Your task to perform on an android device: turn on data saver in the chrome app Image 0: 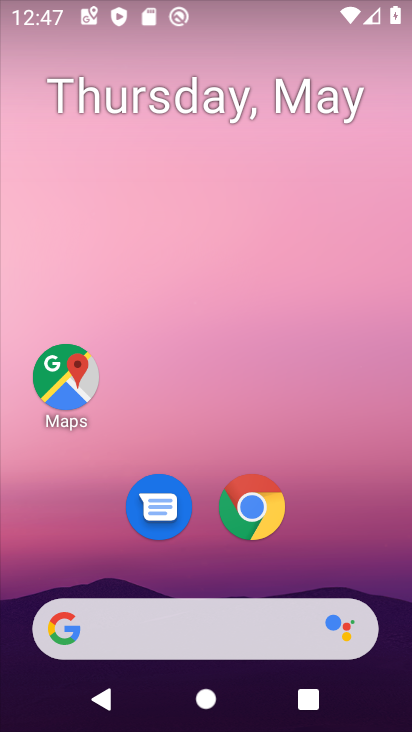
Step 0: drag from (324, 586) to (259, 21)
Your task to perform on an android device: turn on data saver in the chrome app Image 1: 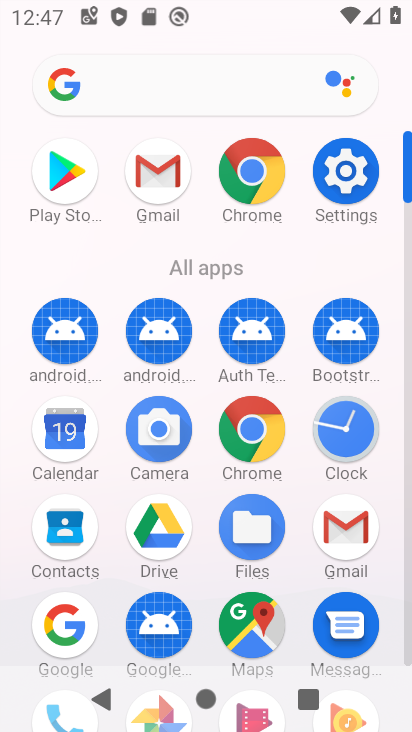
Step 1: click (255, 464)
Your task to perform on an android device: turn on data saver in the chrome app Image 2: 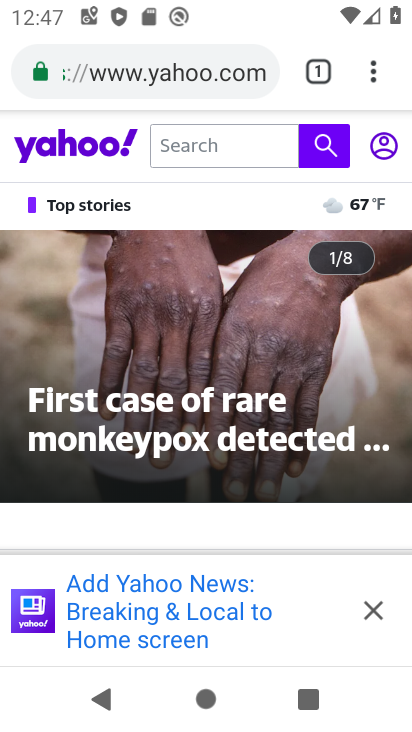
Step 2: click (371, 73)
Your task to perform on an android device: turn on data saver in the chrome app Image 3: 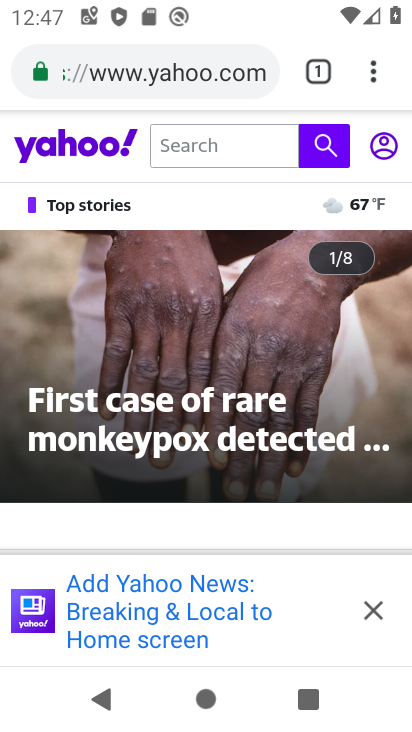
Step 3: click (375, 78)
Your task to perform on an android device: turn on data saver in the chrome app Image 4: 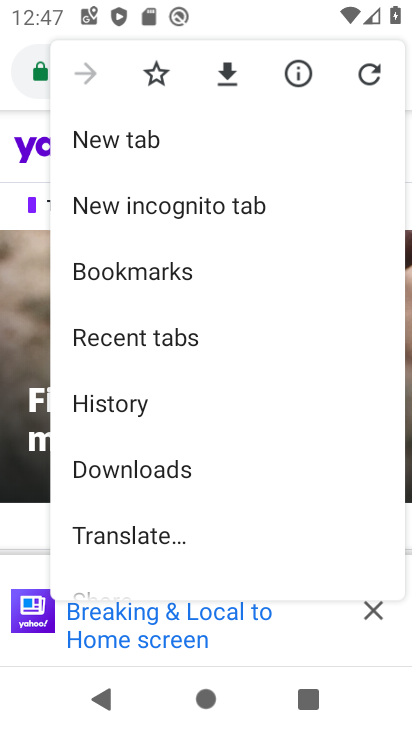
Step 4: drag from (206, 512) to (162, 0)
Your task to perform on an android device: turn on data saver in the chrome app Image 5: 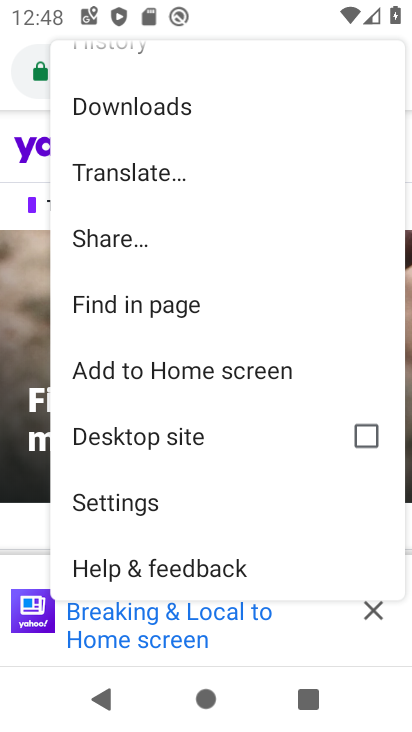
Step 5: click (139, 511)
Your task to perform on an android device: turn on data saver in the chrome app Image 6: 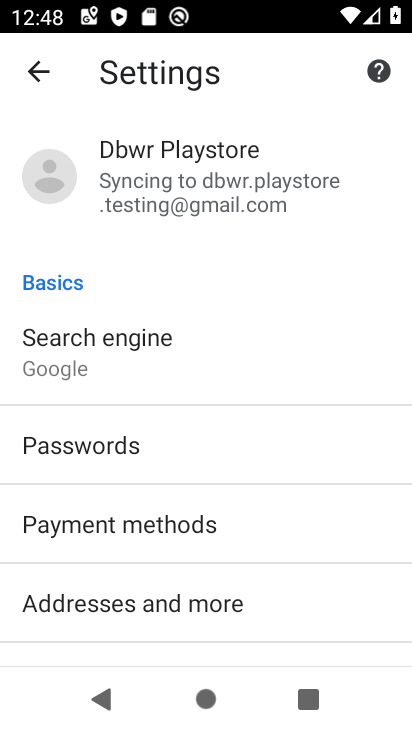
Step 6: drag from (180, 568) to (193, 137)
Your task to perform on an android device: turn on data saver in the chrome app Image 7: 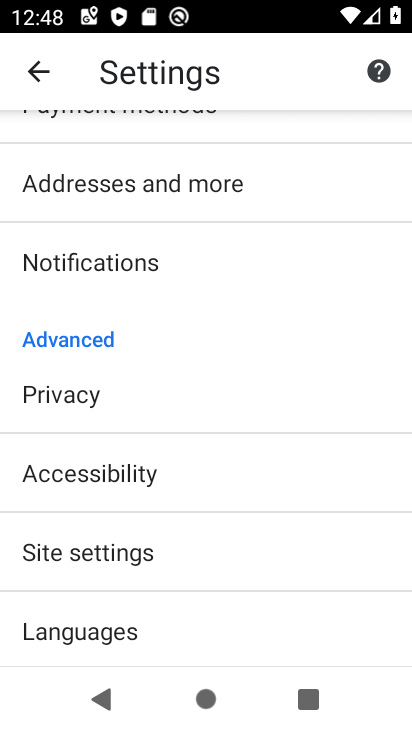
Step 7: drag from (174, 596) to (173, 135)
Your task to perform on an android device: turn on data saver in the chrome app Image 8: 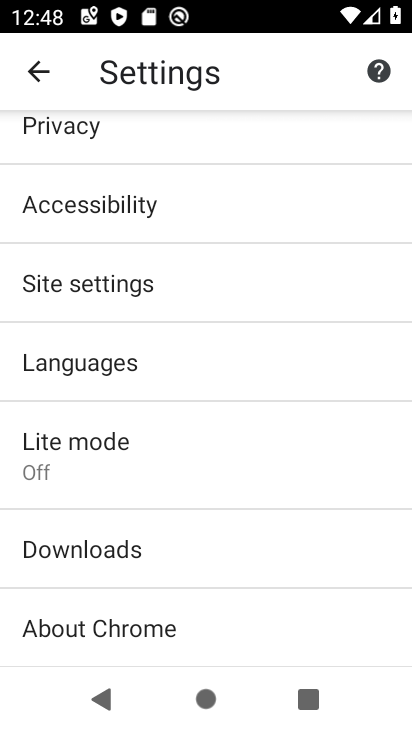
Step 8: click (96, 477)
Your task to perform on an android device: turn on data saver in the chrome app Image 9: 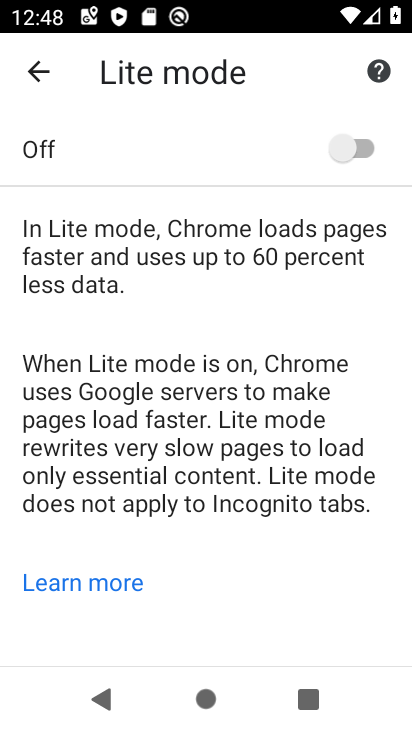
Step 9: click (355, 149)
Your task to perform on an android device: turn on data saver in the chrome app Image 10: 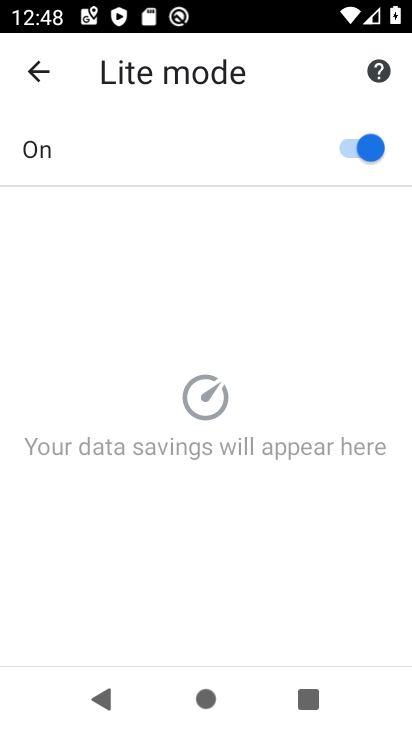
Step 10: task complete